Your task to perform on an android device: Open ESPN.com Image 0: 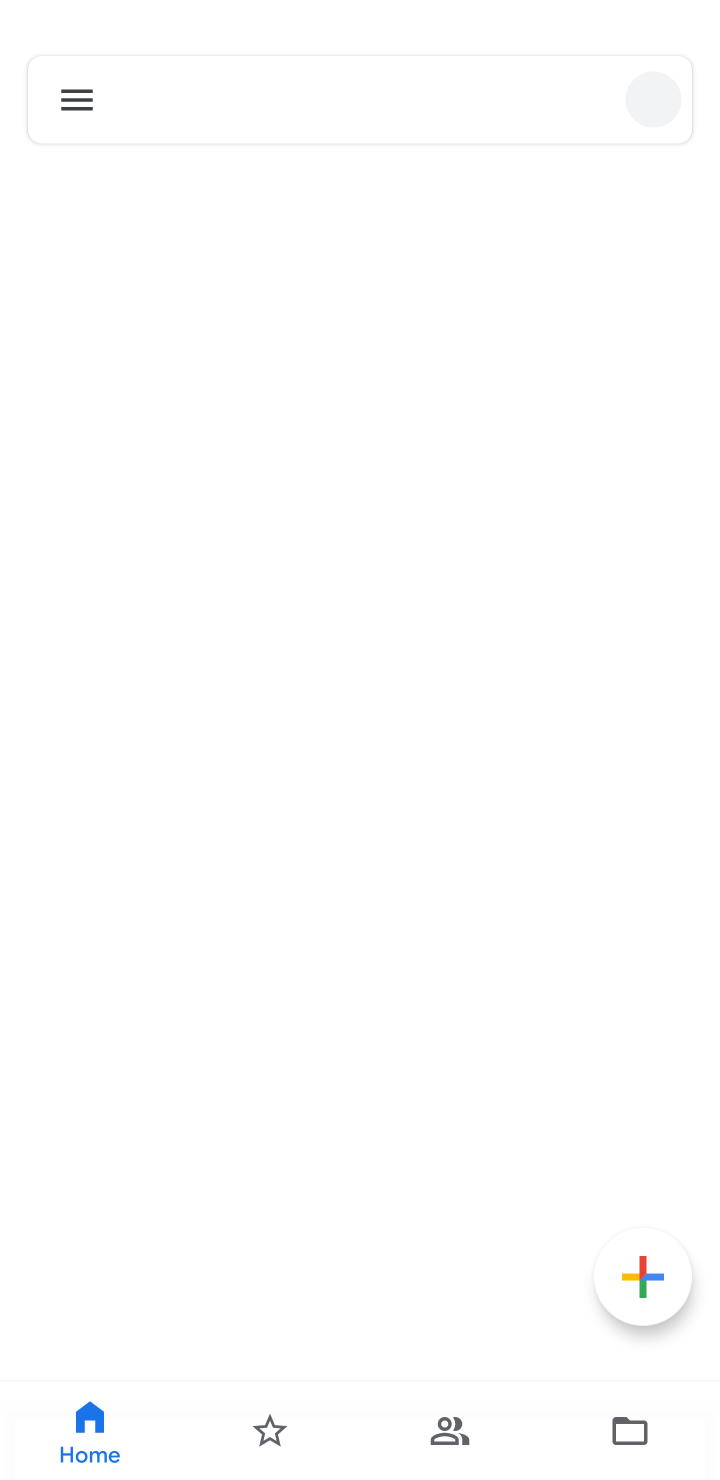
Step 0: press home button
Your task to perform on an android device: Open ESPN.com Image 1: 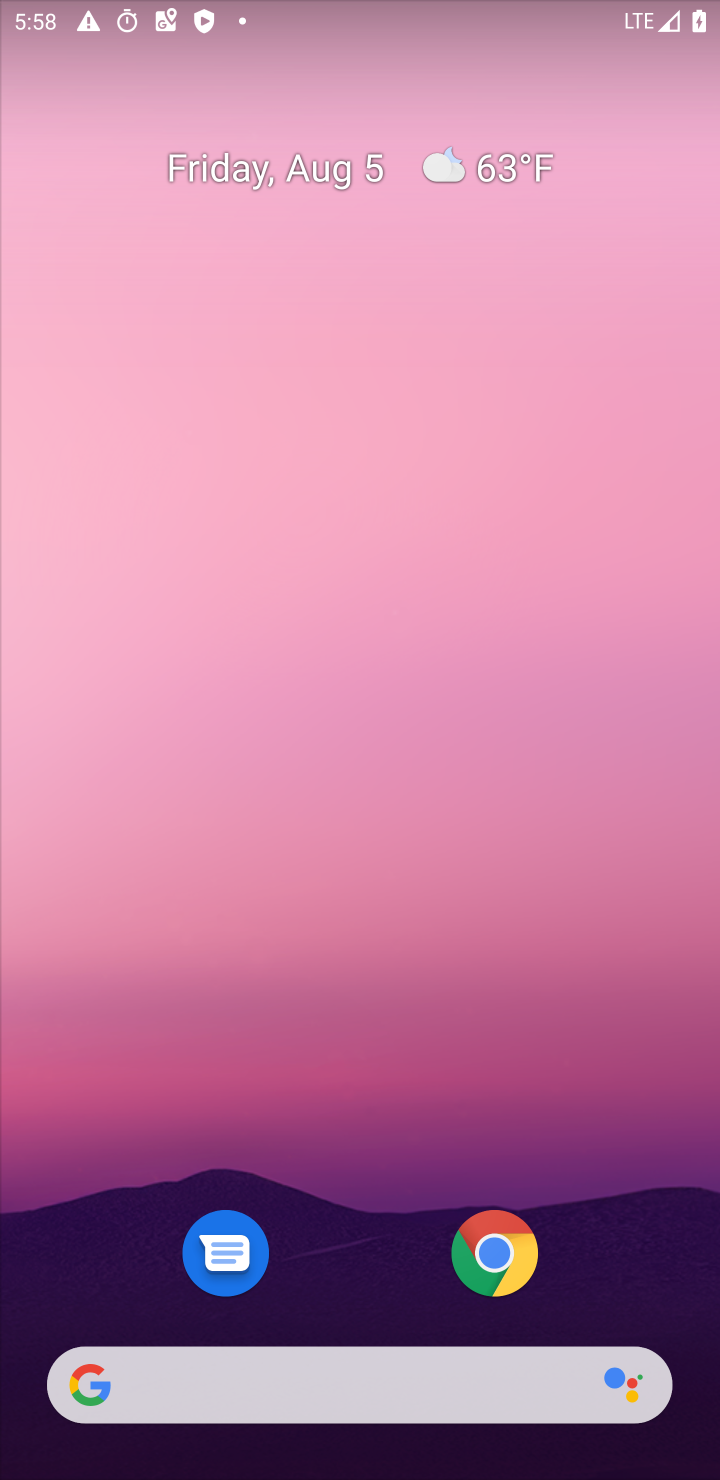
Step 1: click (510, 1262)
Your task to perform on an android device: Open ESPN.com Image 2: 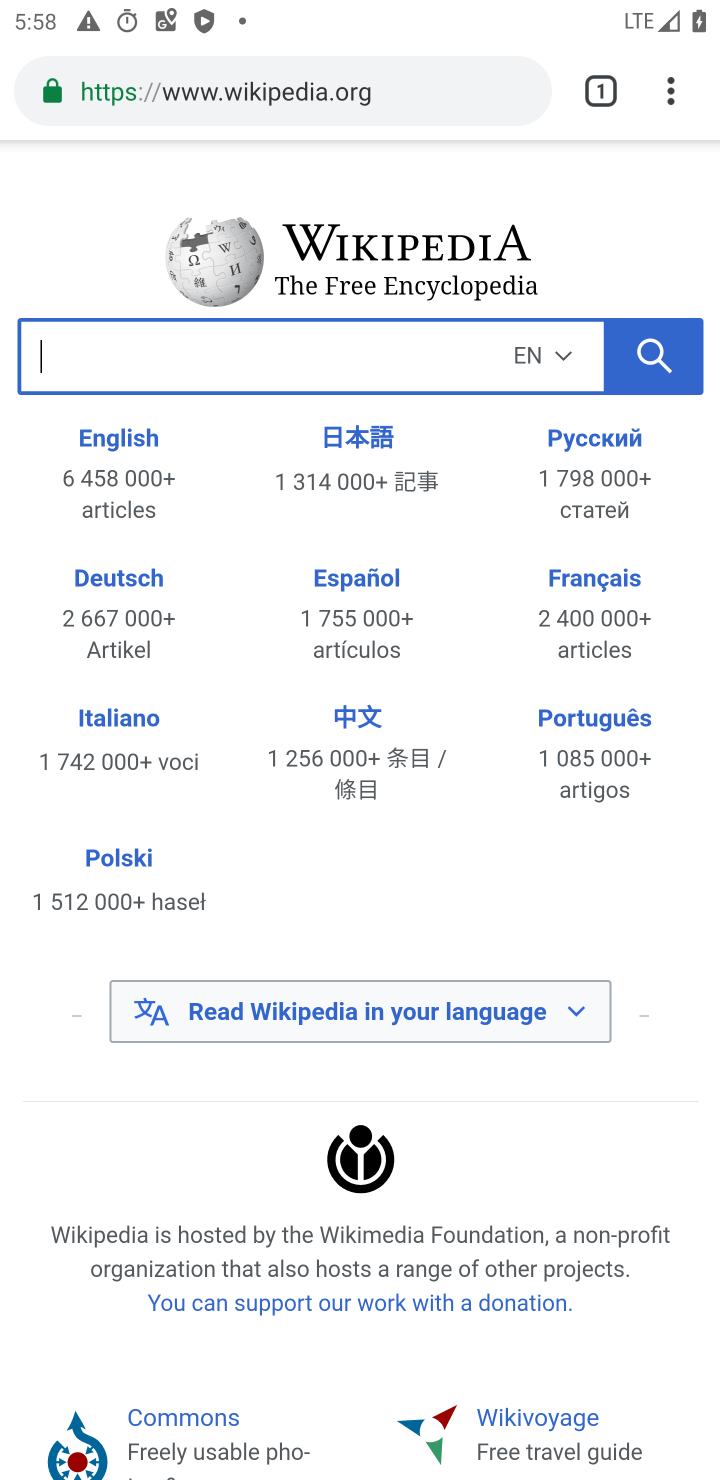
Step 2: click (303, 103)
Your task to perform on an android device: Open ESPN.com Image 3: 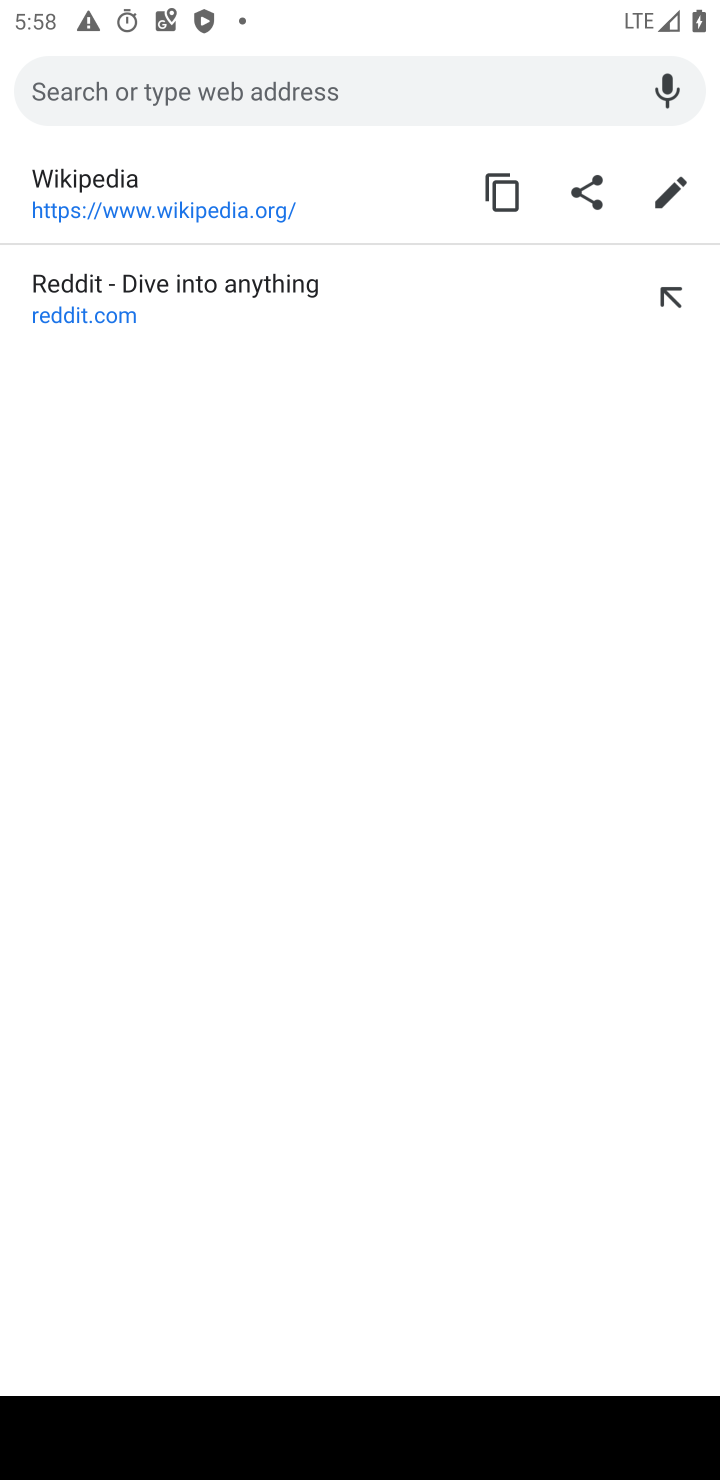
Step 3: type "espn.com"
Your task to perform on an android device: Open ESPN.com Image 4: 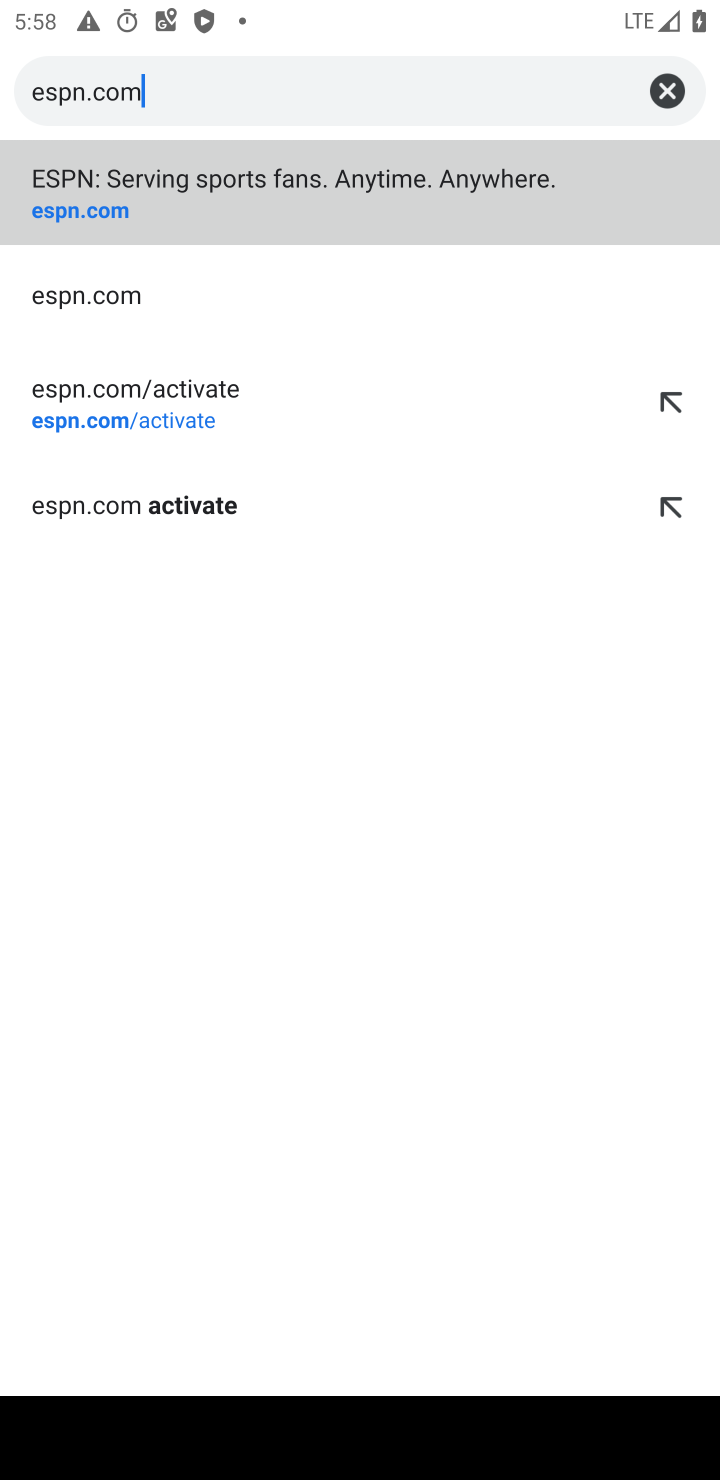
Step 4: click (250, 228)
Your task to perform on an android device: Open ESPN.com Image 5: 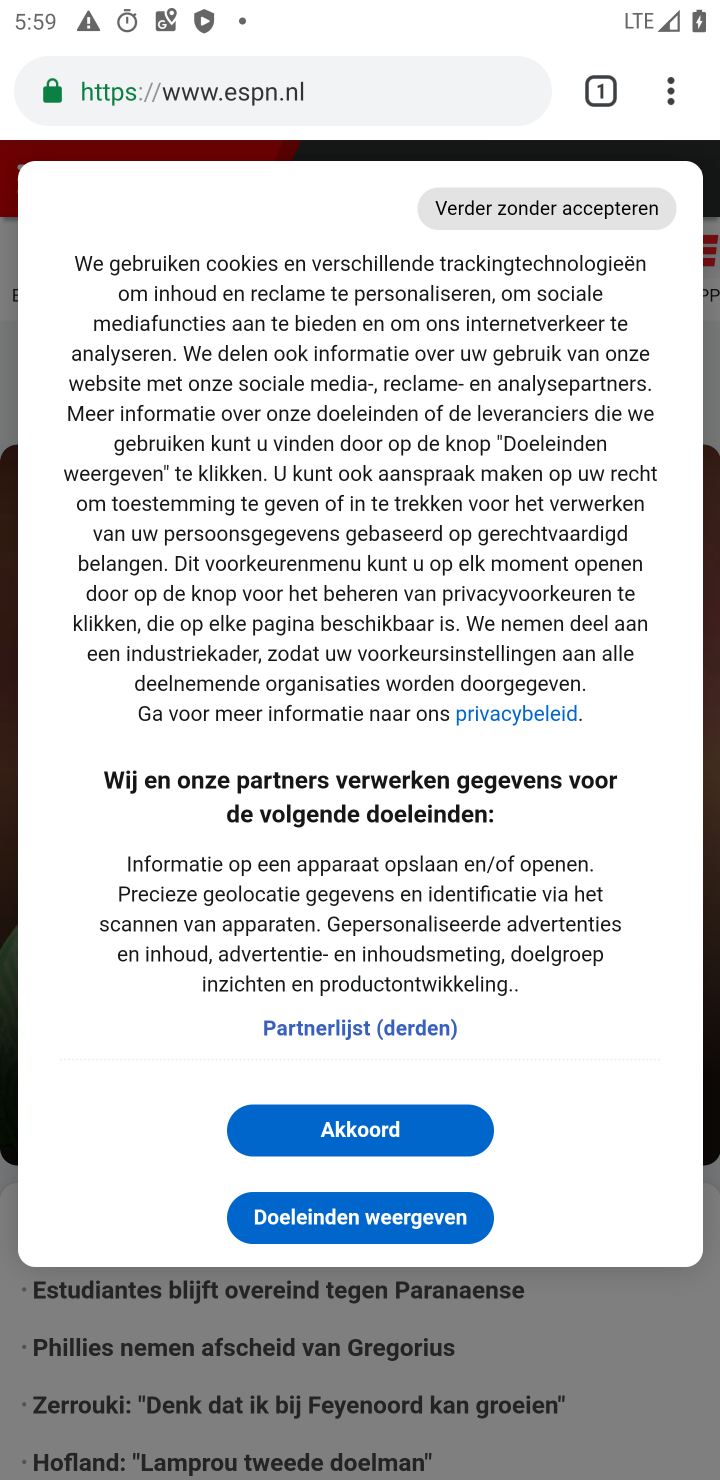
Step 5: task complete